Your task to perform on an android device: delete location history Image 0: 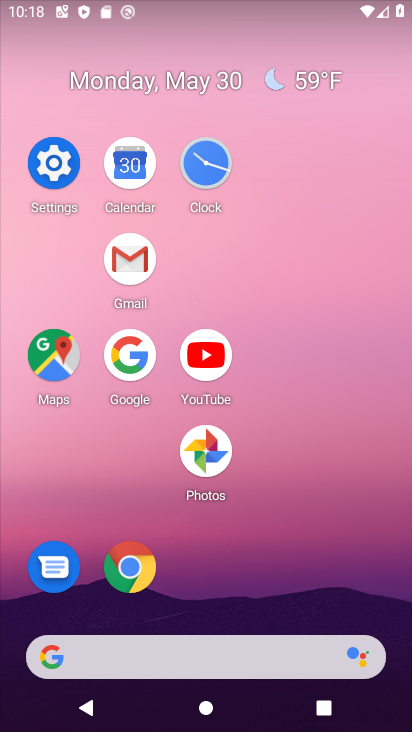
Step 0: click (55, 173)
Your task to perform on an android device: delete location history Image 1: 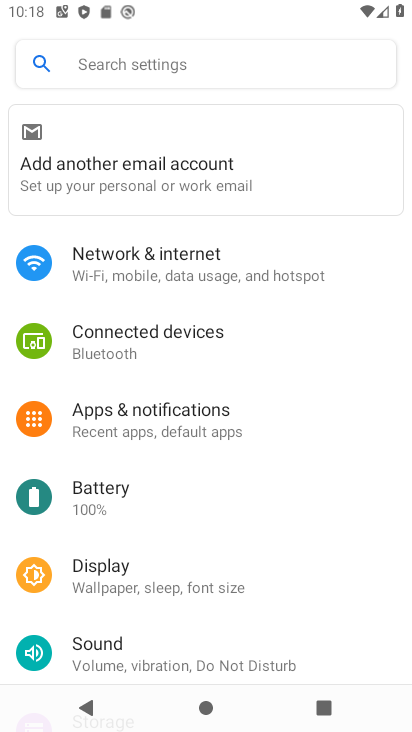
Step 1: drag from (226, 585) to (242, 206)
Your task to perform on an android device: delete location history Image 2: 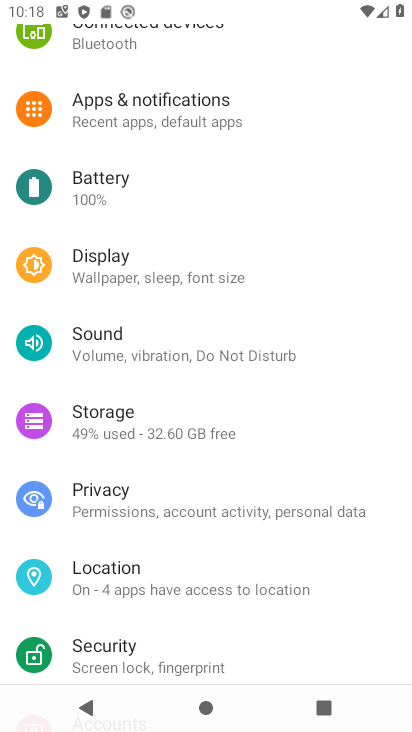
Step 2: click (181, 574)
Your task to perform on an android device: delete location history Image 3: 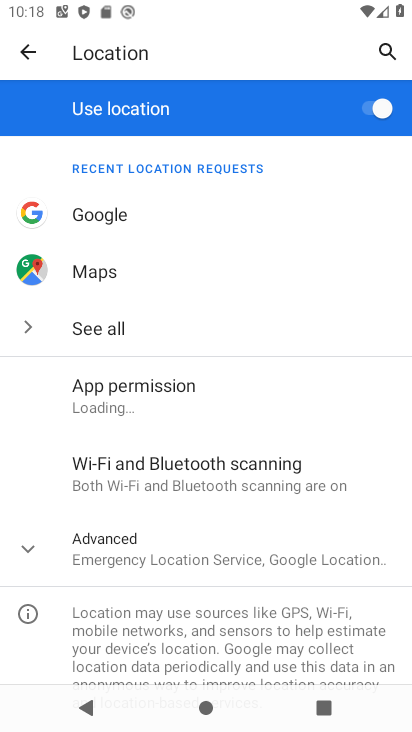
Step 3: click (179, 552)
Your task to perform on an android device: delete location history Image 4: 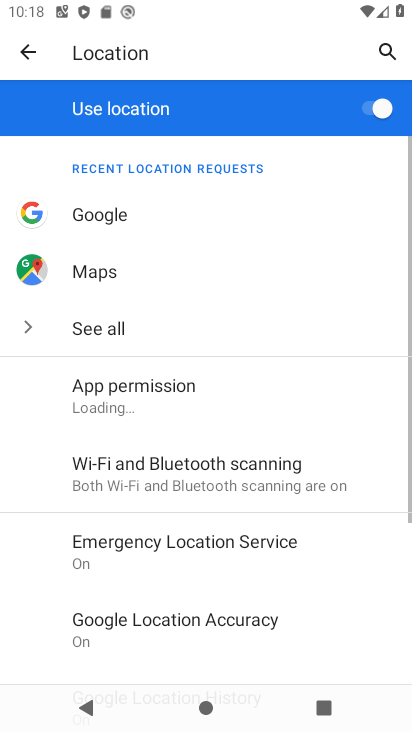
Step 4: drag from (210, 592) to (265, 238)
Your task to perform on an android device: delete location history Image 5: 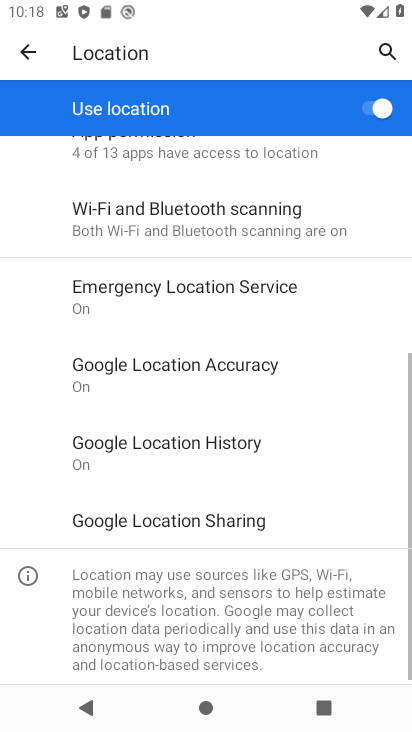
Step 5: click (273, 443)
Your task to perform on an android device: delete location history Image 6: 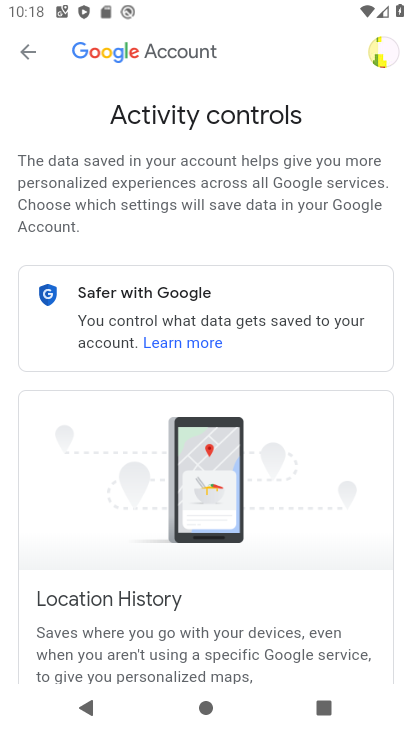
Step 6: drag from (246, 549) to (267, 167)
Your task to perform on an android device: delete location history Image 7: 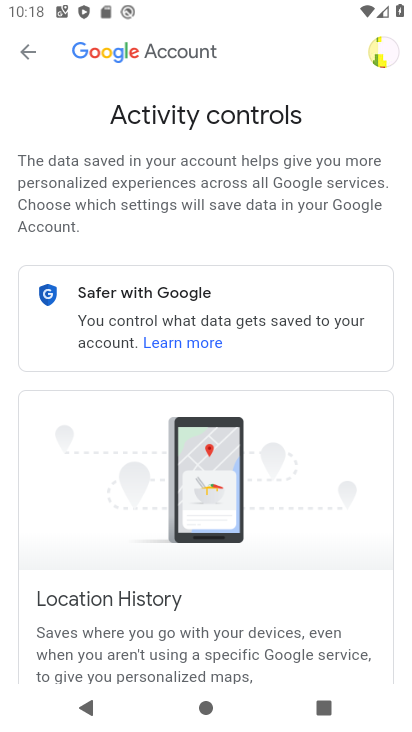
Step 7: drag from (250, 526) to (266, 161)
Your task to perform on an android device: delete location history Image 8: 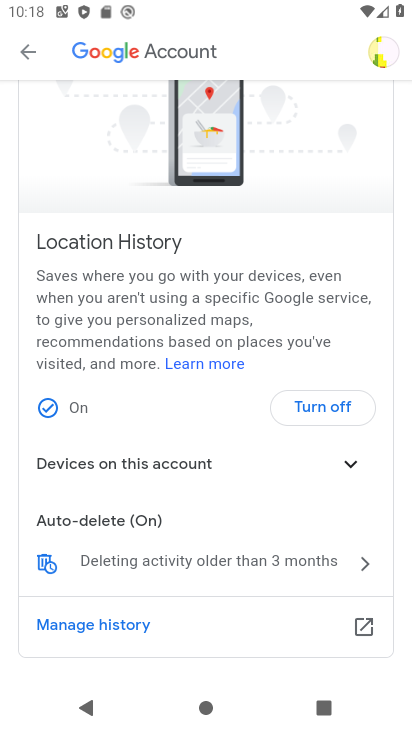
Step 8: click (323, 562)
Your task to perform on an android device: delete location history Image 9: 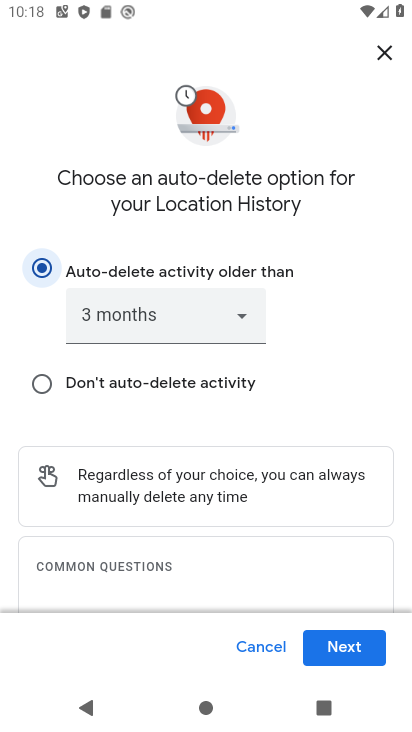
Step 9: drag from (302, 503) to (341, 50)
Your task to perform on an android device: delete location history Image 10: 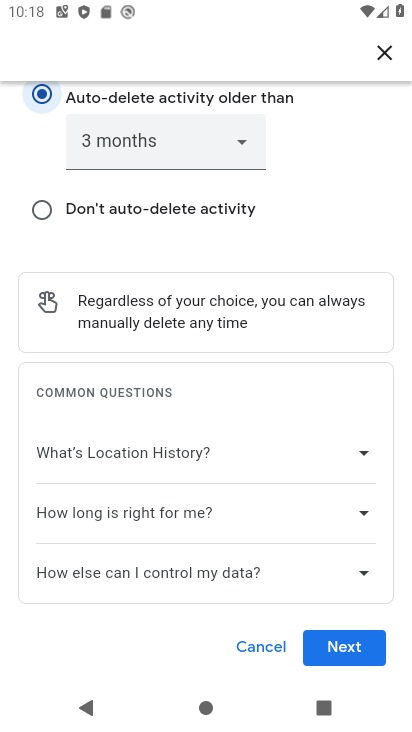
Step 10: click (335, 651)
Your task to perform on an android device: delete location history Image 11: 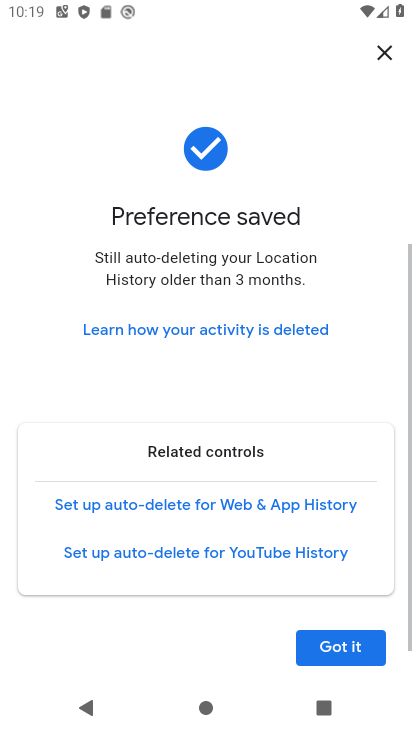
Step 11: click (383, 652)
Your task to perform on an android device: delete location history Image 12: 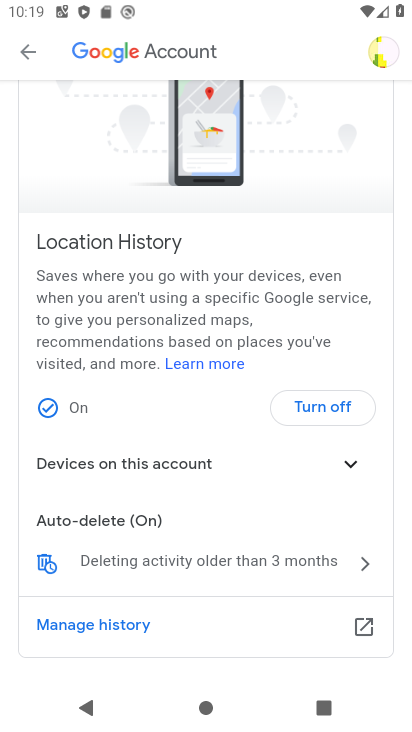
Step 12: task complete